Your task to perform on an android device: Open Google Chrome and click the shortcut for Amazon.com Image 0: 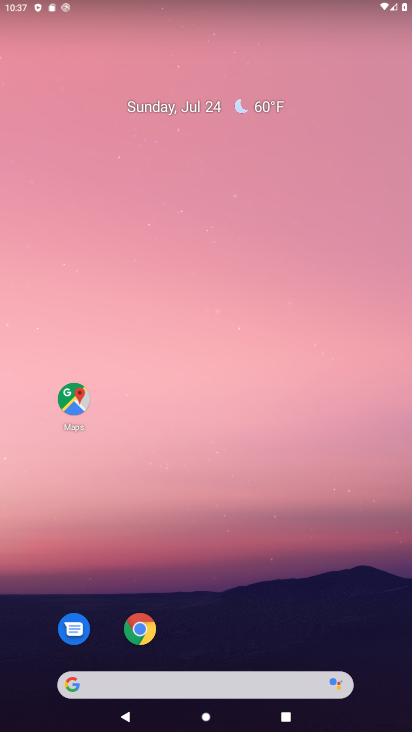
Step 0: drag from (250, 688) to (239, 113)
Your task to perform on an android device: Open Google Chrome and click the shortcut for Amazon.com Image 1: 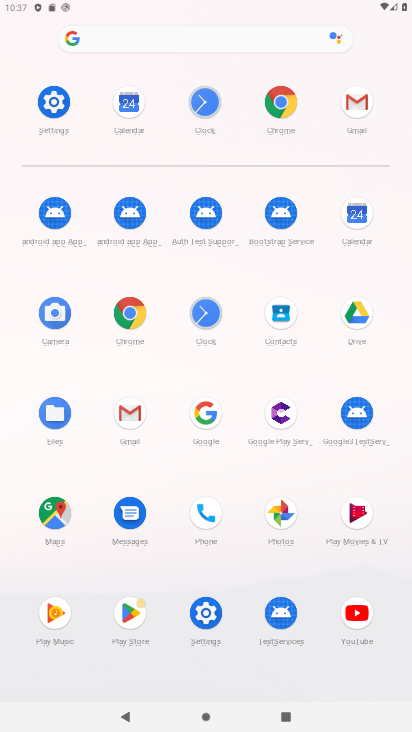
Step 1: click (277, 106)
Your task to perform on an android device: Open Google Chrome and click the shortcut for Amazon.com Image 2: 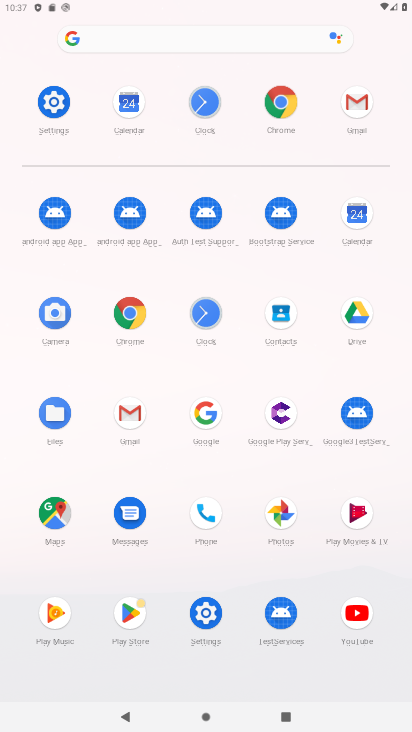
Step 2: click (276, 103)
Your task to perform on an android device: Open Google Chrome and click the shortcut for Amazon.com Image 3: 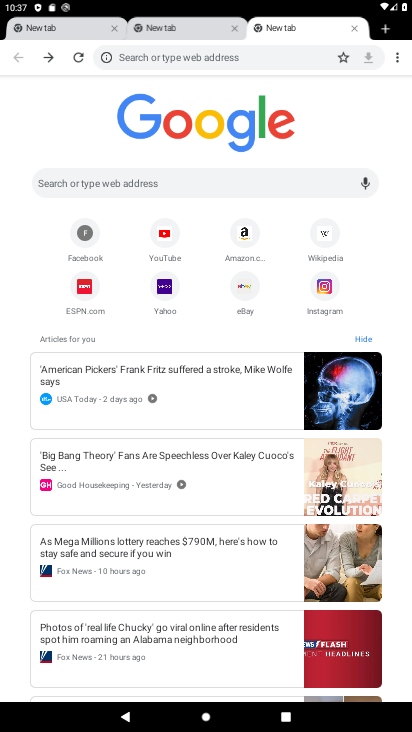
Step 3: click (238, 241)
Your task to perform on an android device: Open Google Chrome and click the shortcut for Amazon.com Image 4: 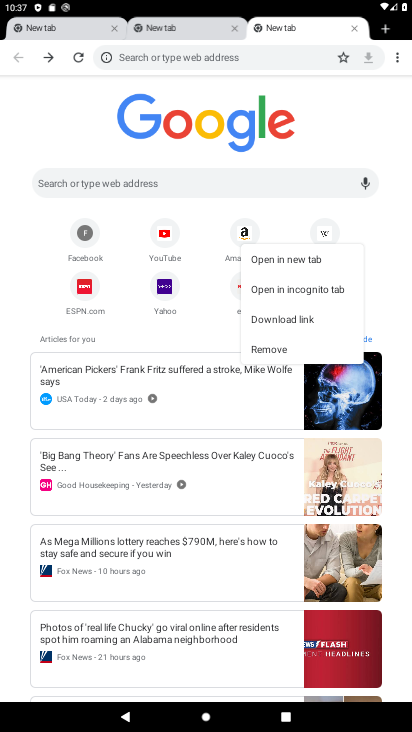
Step 4: click (243, 235)
Your task to perform on an android device: Open Google Chrome and click the shortcut for Amazon.com Image 5: 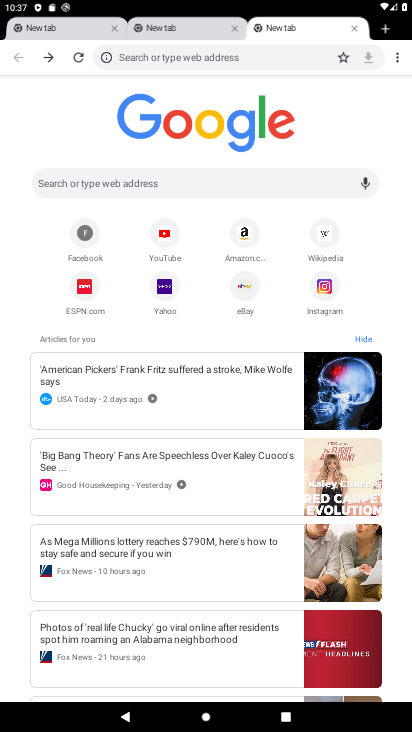
Step 5: click (245, 233)
Your task to perform on an android device: Open Google Chrome and click the shortcut for Amazon.com Image 6: 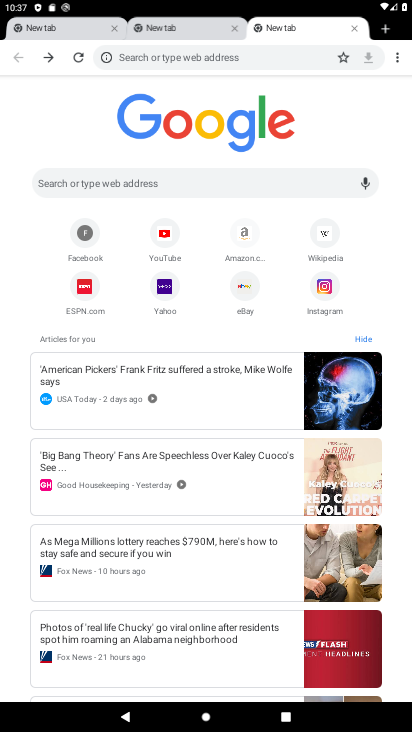
Step 6: click (250, 232)
Your task to perform on an android device: Open Google Chrome and click the shortcut for Amazon.com Image 7: 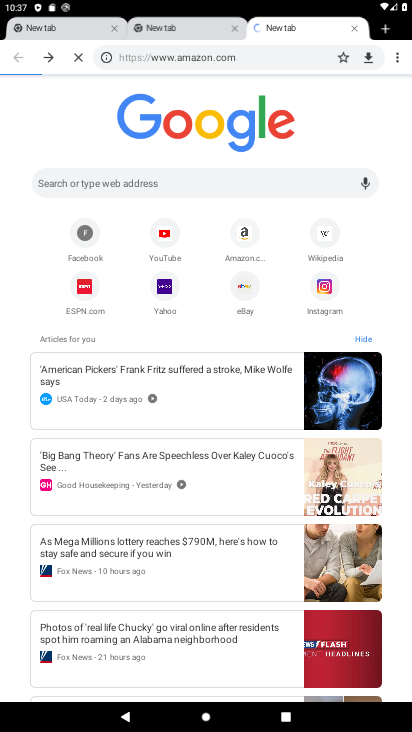
Step 7: click (256, 230)
Your task to perform on an android device: Open Google Chrome and click the shortcut for Amazon.com Image 8: 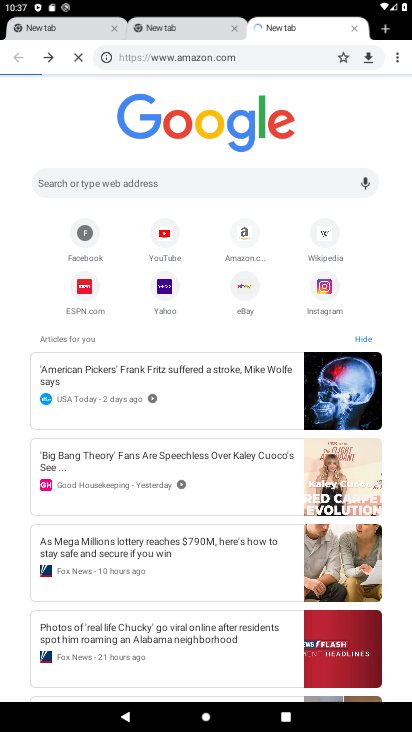
Step 8: click (267, 232)
Your task to perform on an android device: Open Google Chrome and click the shortcut for Amazon.com Image 9: 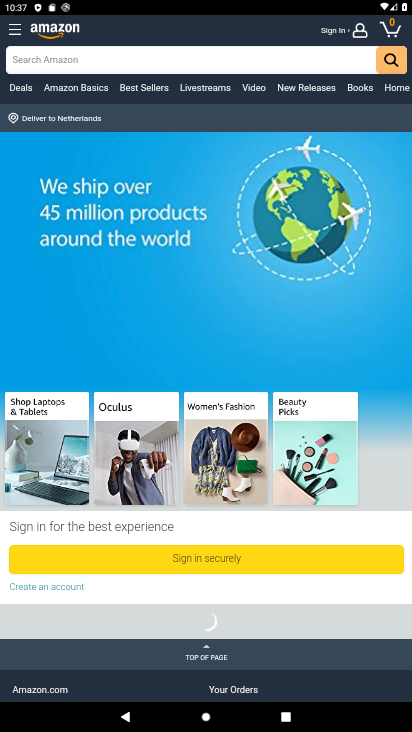
Step 9: task complete